Your task to perform on an android device: Open settings Image 0: 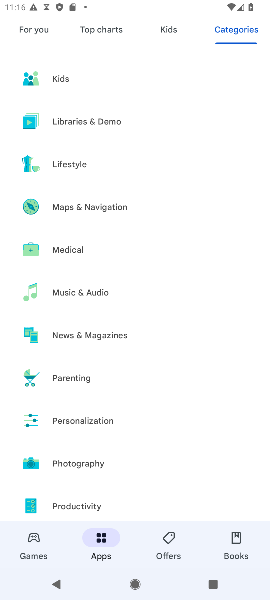
Step 0: press home button
Your task to perform on an android device: Open settings Image 1: 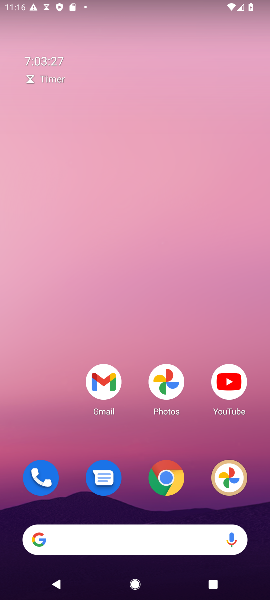
Step 1: drag from (201, 353) to (170, 6)
Your task to perform on an android device: Open settings Image 2: 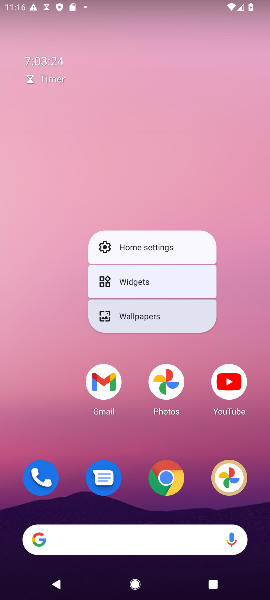
Step 2: drag from (259, 462) to (229, 126)
Your task to perform on an android device: Open settings Image 3: 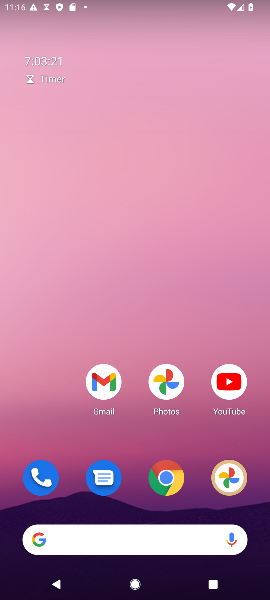
Step 3: drag from (195, 470) to (166, 70)
Your task to perform on an android device: Open settings Image 4: 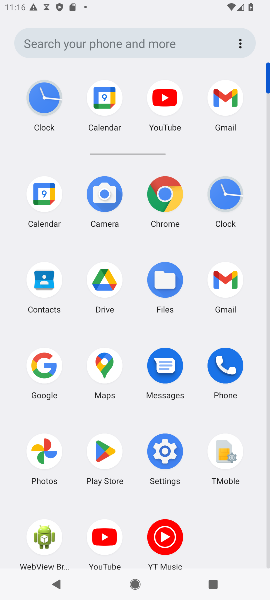
Step 4: click (164, 468)
Your task to perform on an android device: Open settings Image 5: 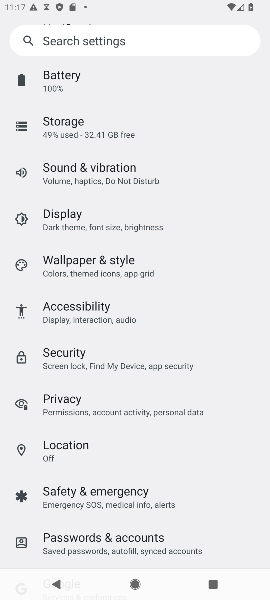
Step 5: task complete